Your task to perform on an android device: Show me productivity apps on the Play Store Image 0: 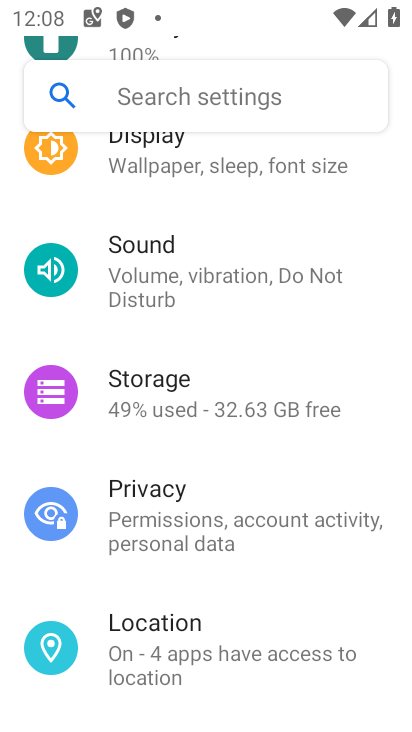
Step 0: press home button
Your task to perform on an android device: Show me productivity apps on the Play Store Image 1: 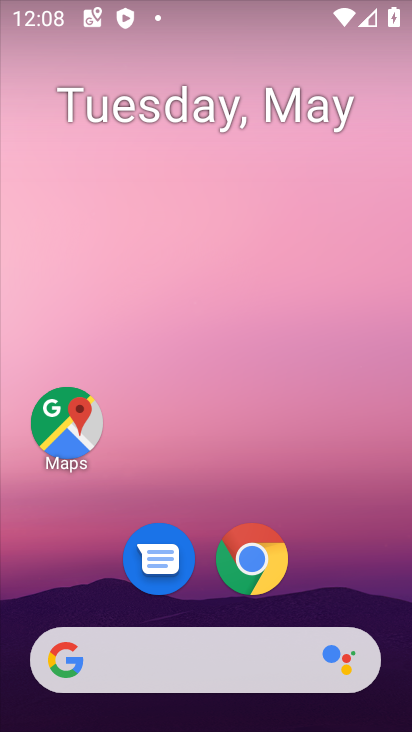
Step 1: drag from (367, 594) to (397, 5)
Your task to perform on an android device: Show me productivity apps on the Play Store Image 2: 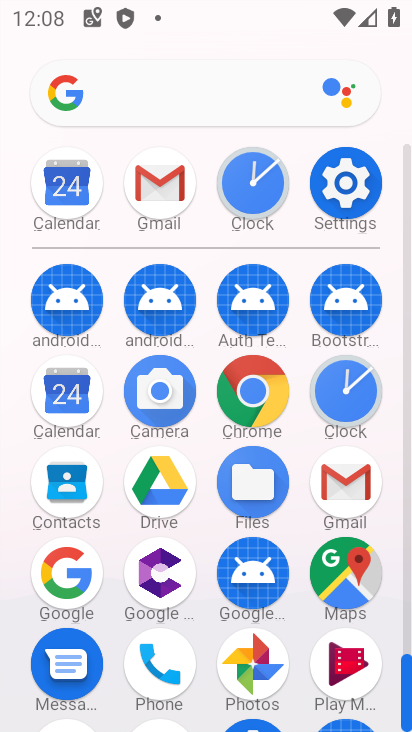
Step 2: drag from (405, 691) to (408, 652)
Your task to perform on an android device: Show me productivity apps on the Play Store Image 3: 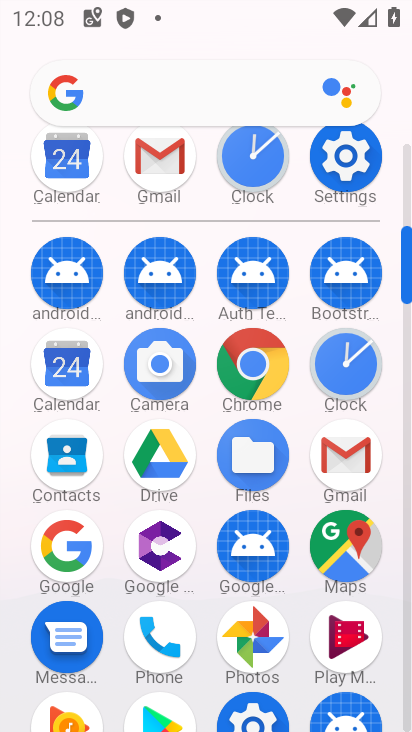
Step 3: click (408, 721)
Your task to perform on an android device: Show me productivity apps on the Play Store Image 4: 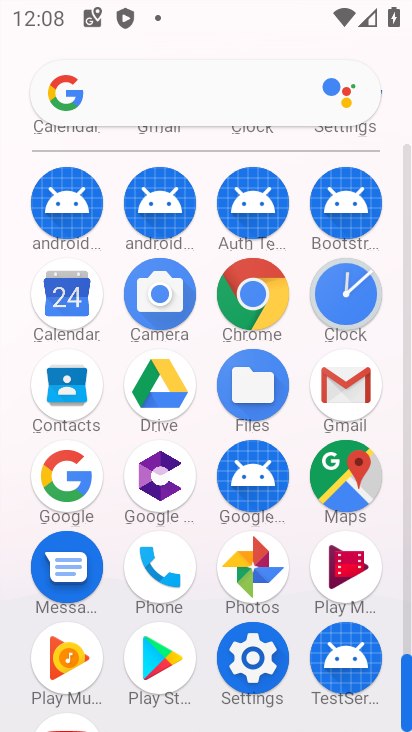
Step 4: click (407, 721)
Your task to perform on an android device: Show me productivity apps on the Play Store Image 5: 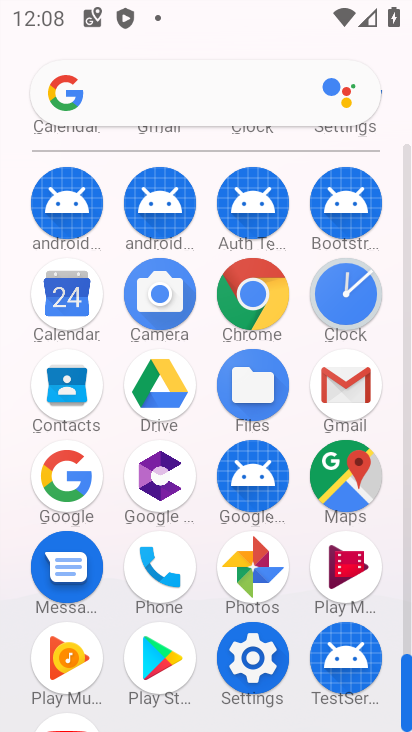
Step 5: click (70, 714)
Your task to perform on an android device: Show me productivity apps on the Play Store Image 6: 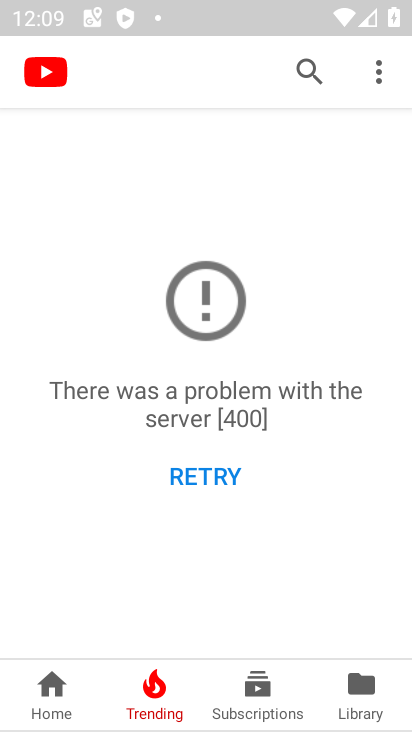
Step 6: task complete